Your task to perform on an android device: Show me popular games on the Play Store Image 0: 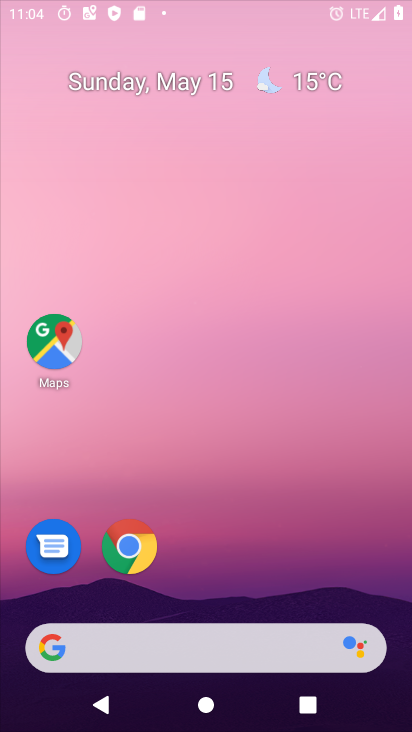
Step 0: drag from (339, 660) to (168, 7)
Your task to perform on an android device: Show me popular games on the Play Store Image 1: 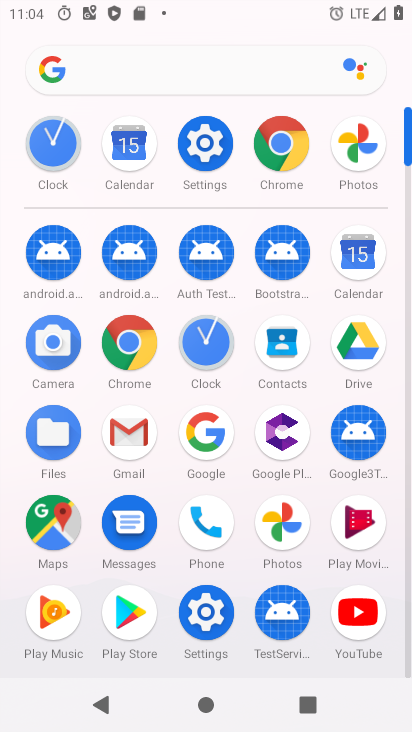
Step 1: click (113, 618)
Your task to perform on an android device: Show me popular games on the Play Store Image 2: 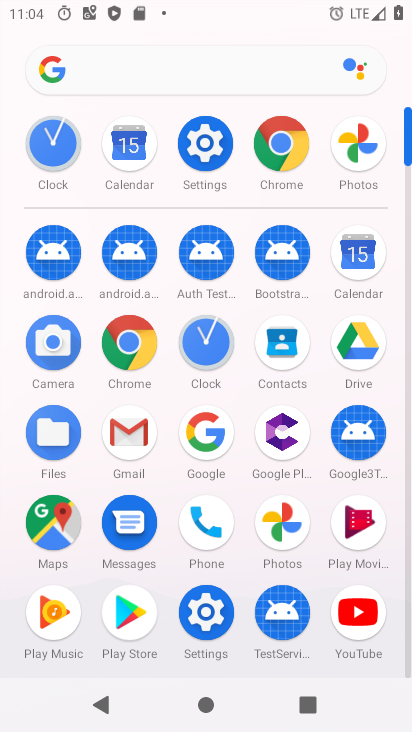
Step 2: click (119, 609)
Your task to perform on an android device: Show me popular games on the Play Store Image 3: 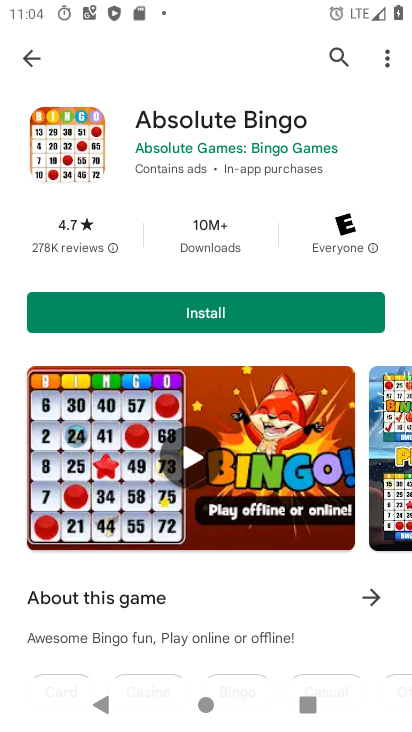
Step 3: click (23, 49)
Your task to perform on an android device: Show me popular games on the Play Store Image 4: 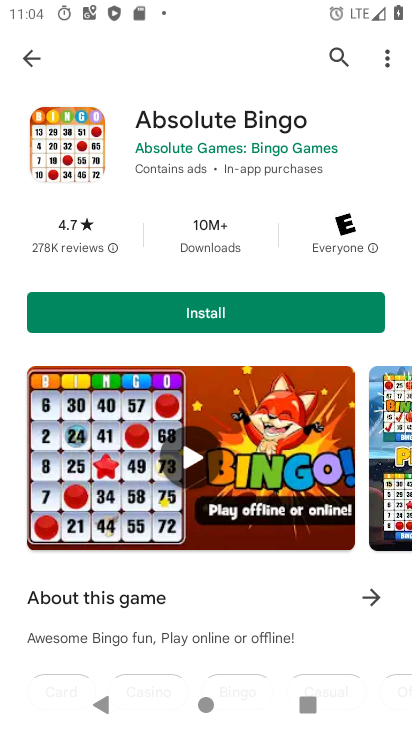
Step 4: click (33, 57)
Your task to perform on an android device: Show me popular games on the Play Store Image 5: 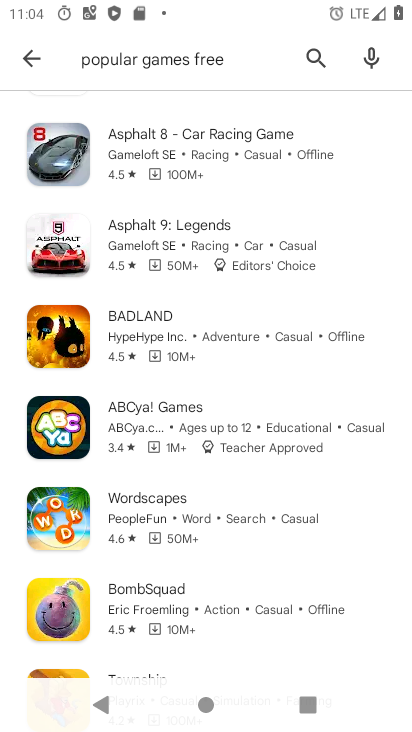
Step 5: task complete